Your task to perform on an android device: Go to eBay Image 0: 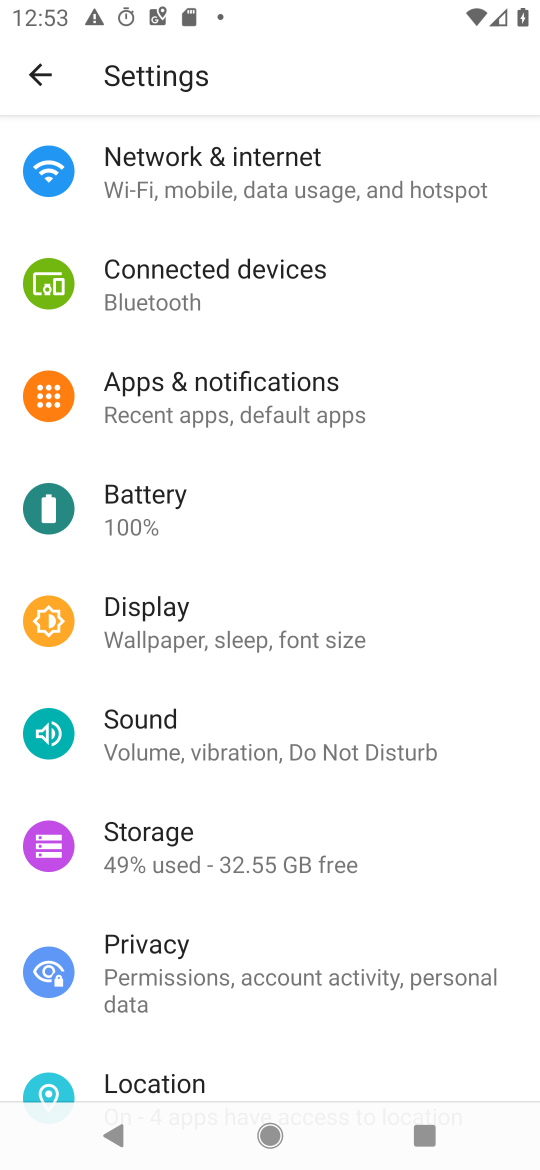
Step 0: press home button
Your task to perform on an android device: Go to eBay Image 1: 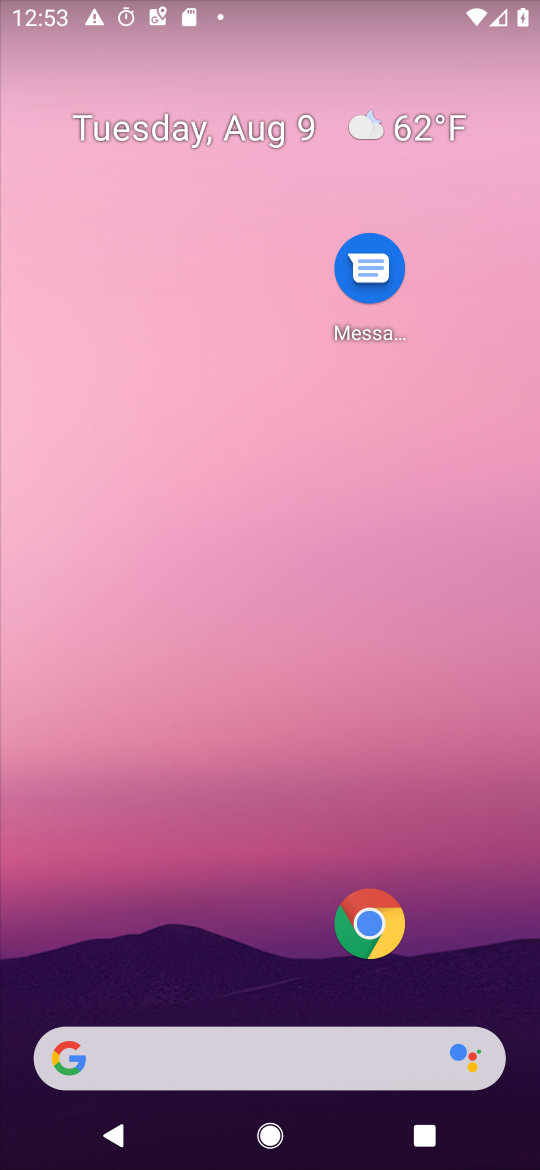
Step 1: click (158, 1042)
Your task to perform on an android device: Go to eBay Image 2: 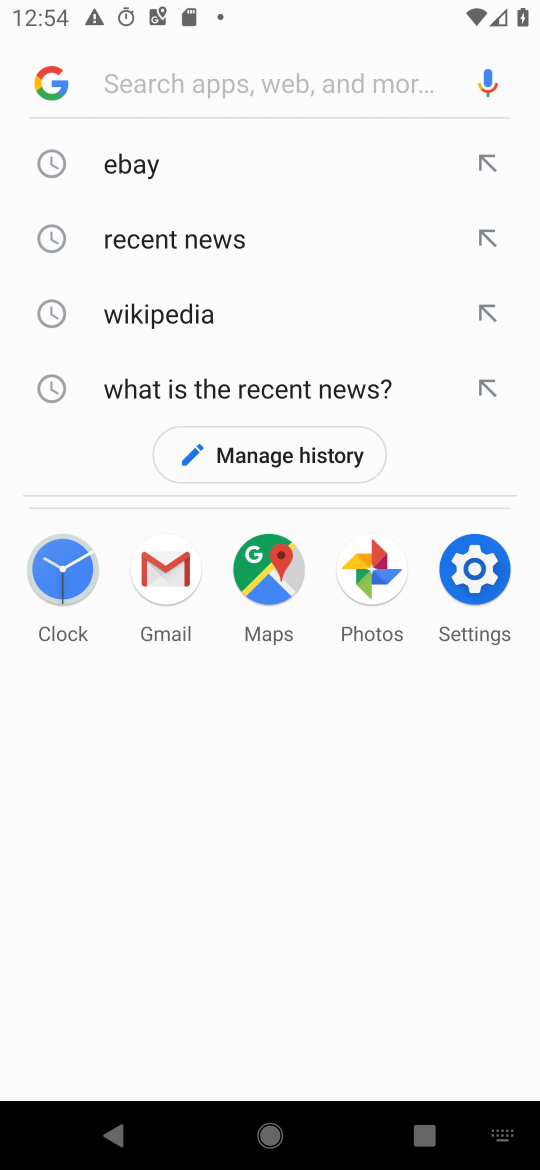
Step 2: click (155, 158)
Your task to perform on an android device: Go to eBay Image 3: 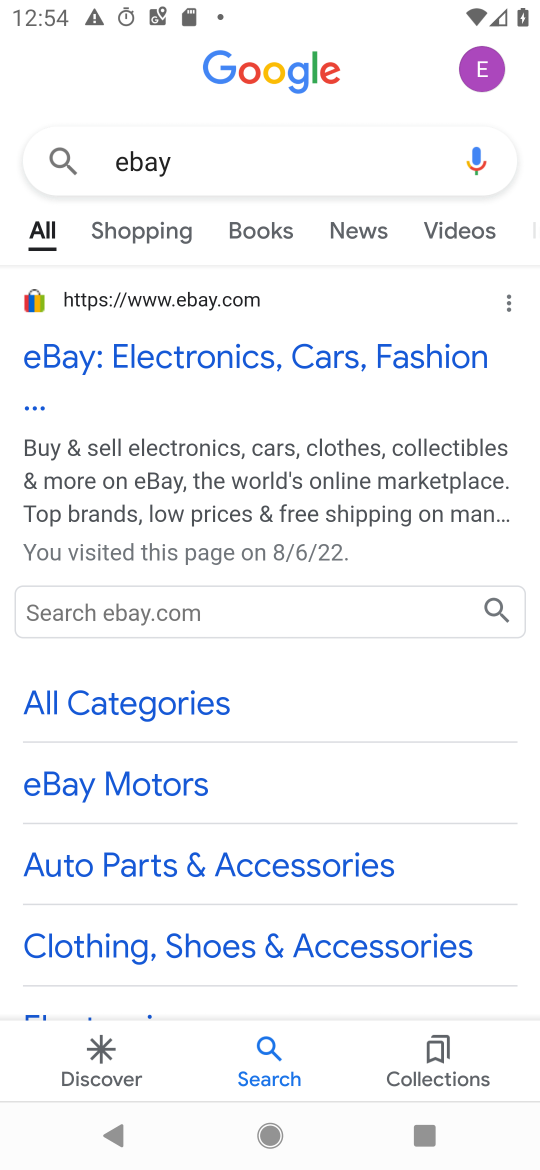
Step 3: task complete